Your task to perform on an android device: Open the Play Movies app and select the watchlist tab. Image 0: 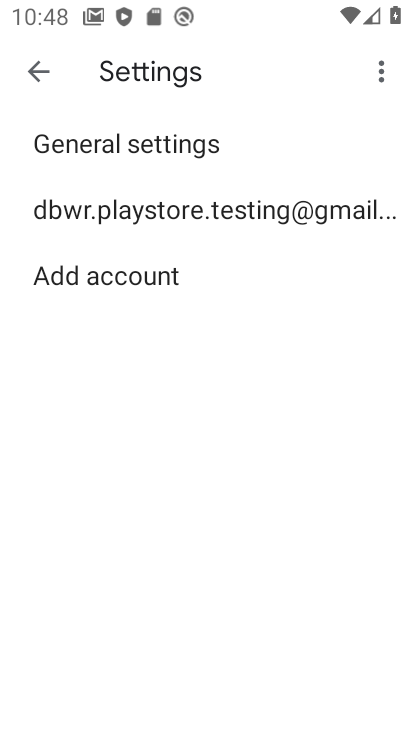
Step 0: press home button
Your task to perform on an android device: Open the Play Movies app and select the watchlist tab. Image 1: 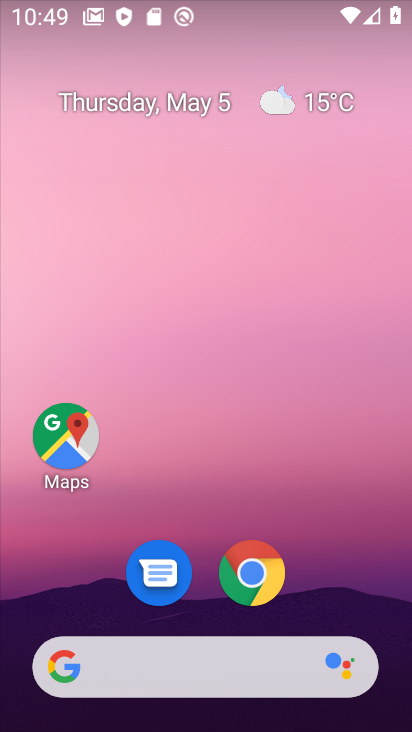
Step 1: drag from (73, 635) to (142, 364)
Your task to perform on an android device: Open the Play Movies app and select the watchlist tab. Image 2: 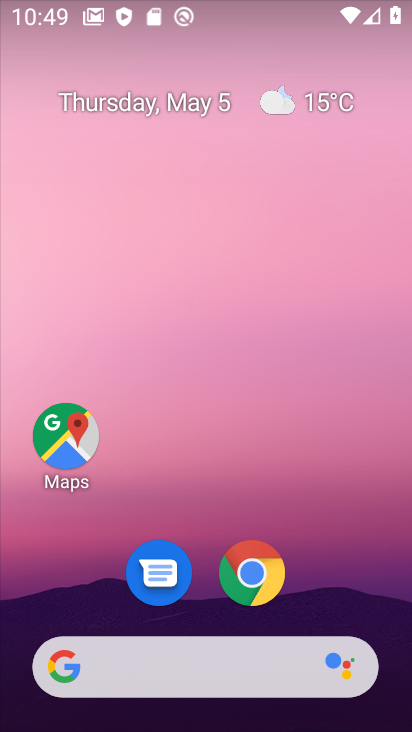
Step 2: drag from (89, 630) to (185, 165)
Your task to perform on an android device: Open the Play Movies app and select the watchlist tab. Image 3: 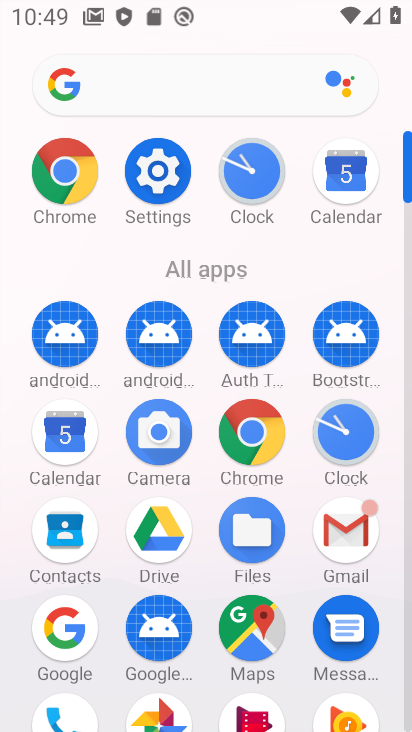
Step 3: click (255, 720)
Your task to perform on an android device: Open the Play Movies app and select the watchlist tab. Image 4: 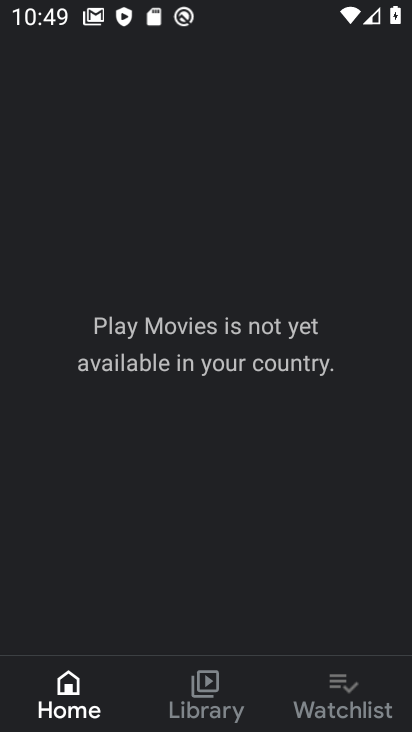
Step 4: click (322, 695)
Your task to perform on an android device: Open the Play Movies app and select the watchlist tab. Image 5: 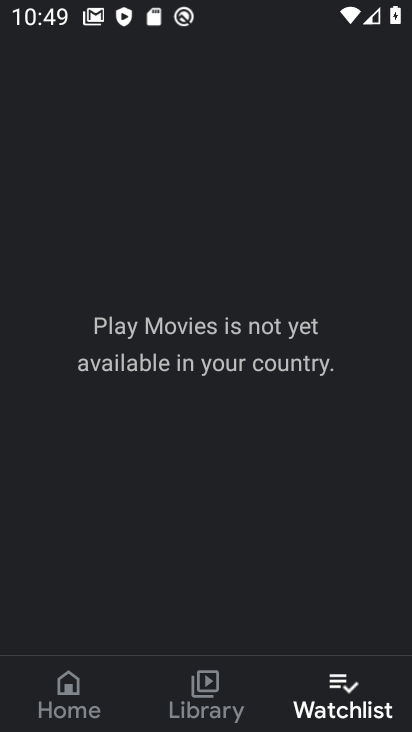
Step 5: click (322, 695)
Your task to perform on an android device: Open the Play Movies app and select the watchlist tab. Image 6: 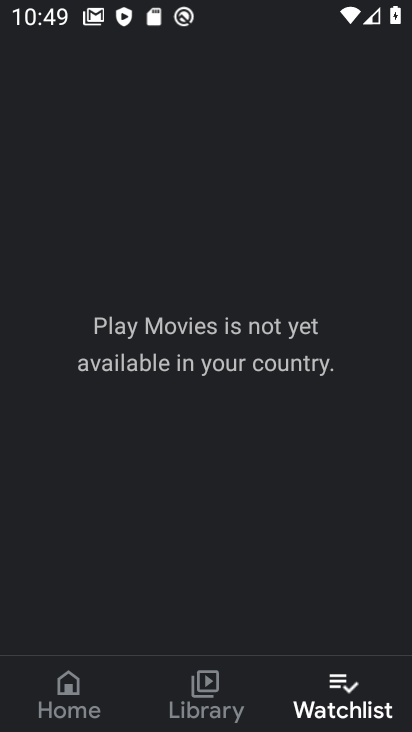
Step 6: task complete